Your task to perform on an android device: Open accessibility settings Image 0: 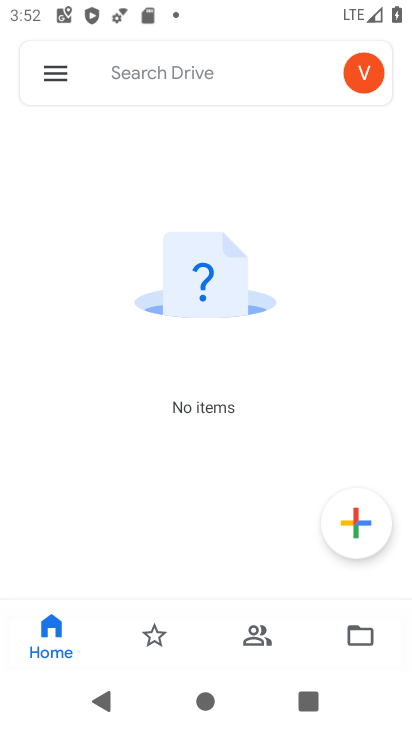
Step 0: press home button
Your task to perform on an android device: Open accessibility settings Image 1: 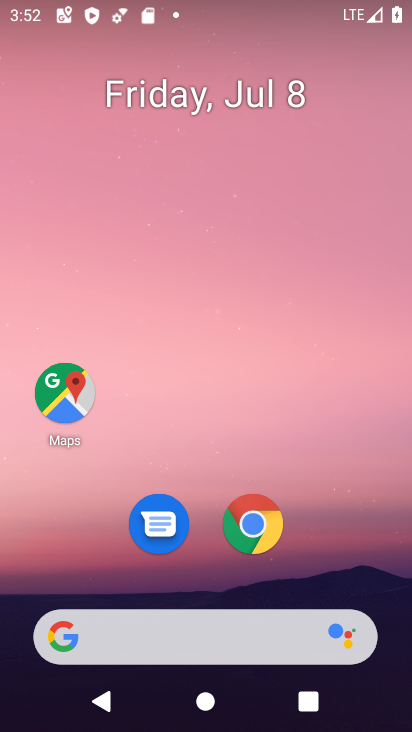
Step 1: drag from (337, 532) to (268, 0)
Your task to perform on an android device: Open accessibility settings Image 2: 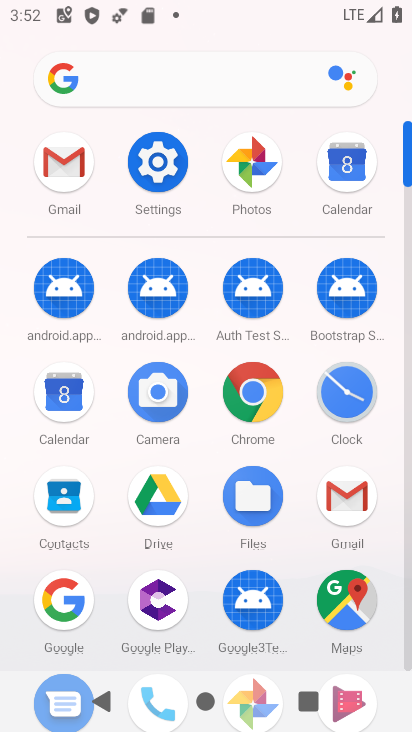
Step 2: click (165, 165)
Your task to perform on an android device: Open accessibility settings Image 3: 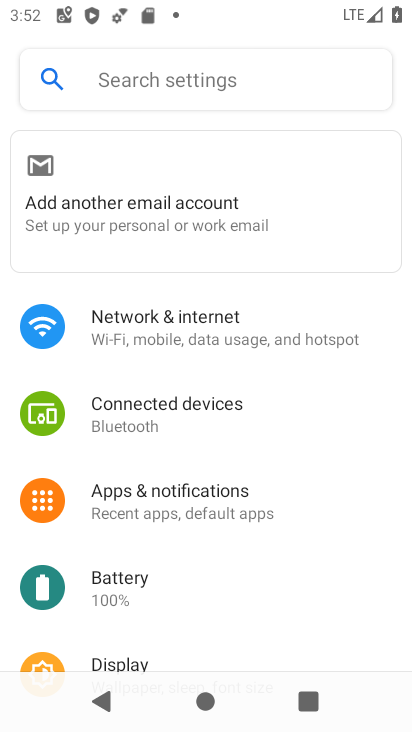
Step 3: drag from (210, 565) to (248, 79)
Your task to perform on an android device: Open accessibility settings Image 4: 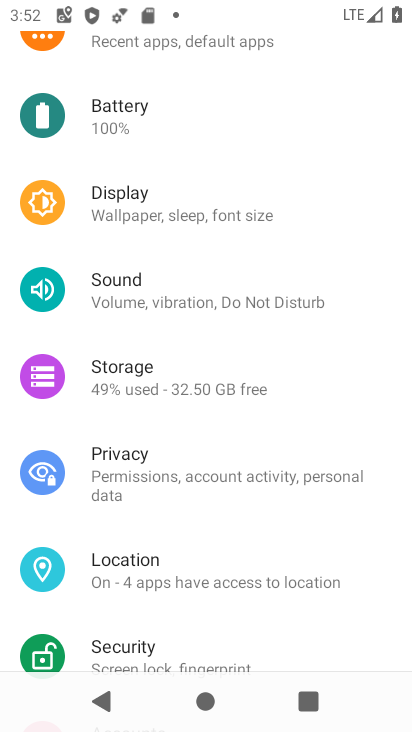
Step 4: drag from (246, 532) to (241, 67)
Your task to perform on an android device: Open accessibility settings Image 5: 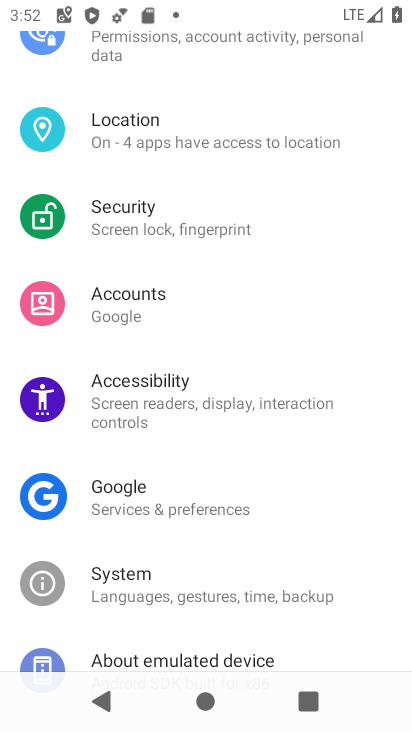
Step 5: click (231, 401)
Your task to perform on an android device: Open accessibility settings Image 6: 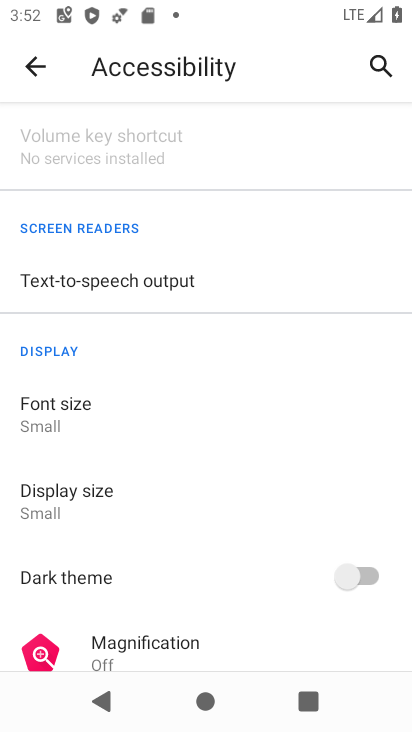
Step 6: task complete